Your task to perform on an android device: change keyboard looks Image 0: 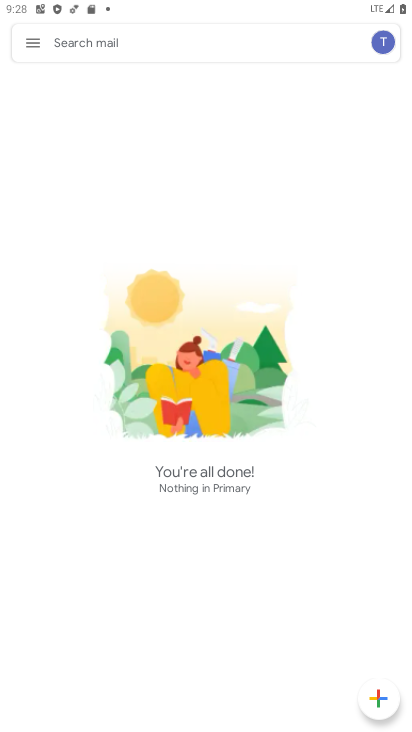
Step 0: press home button
Your task to perform on an android device: change keyboard looks Image 1: 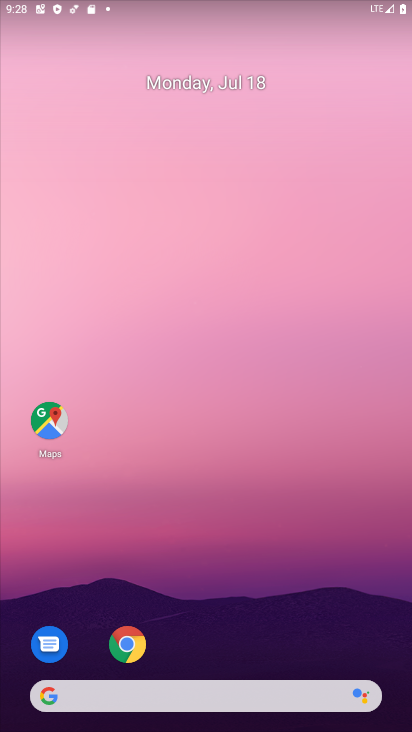
Step 1: drag from (257, 667) to (389, 319)
Your task to perform on an android device: change keyboard looks Image 2: 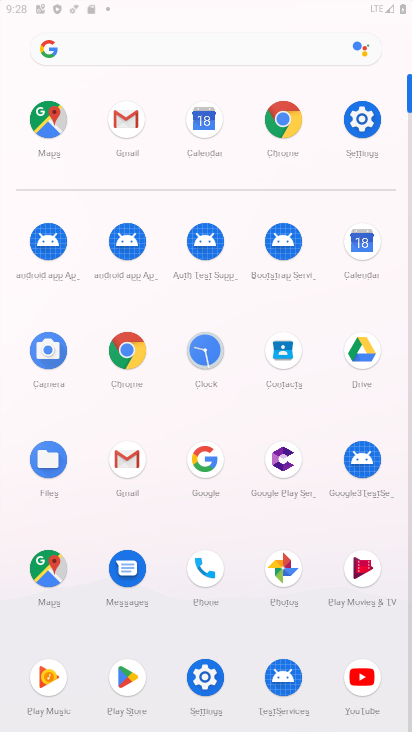
Step 2: click (261, 650)
Your task to perform on an android device: change keyboard looks Image 3: 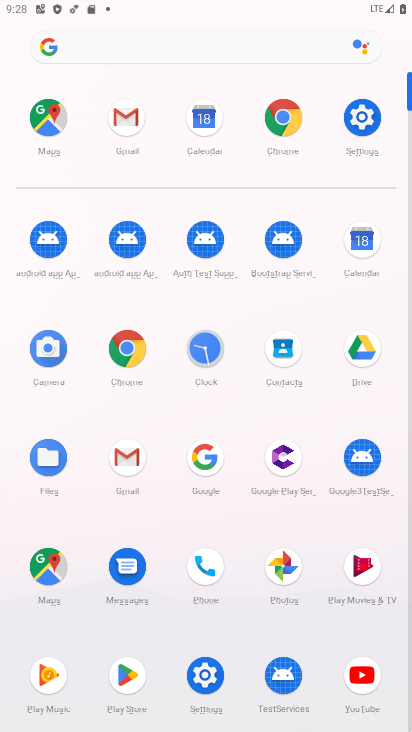
Step 3: click (189, 675)
Your task to perform on an android device: change keyboard looks Image 4: 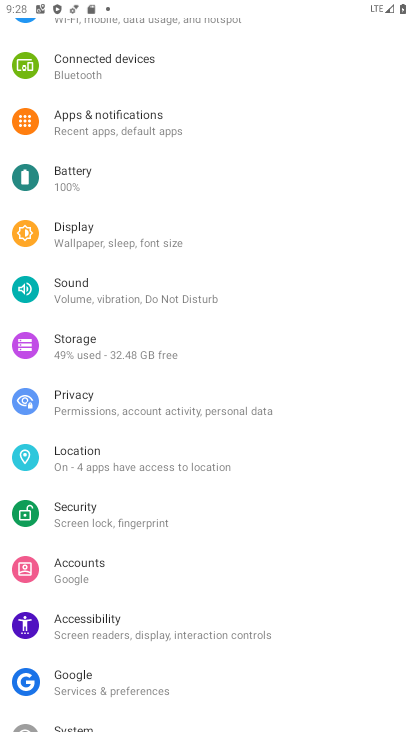
Step 4: drag from (193, 647) to (89, 80)
Your task to perform on an android device: change keyboard looks Image 5: 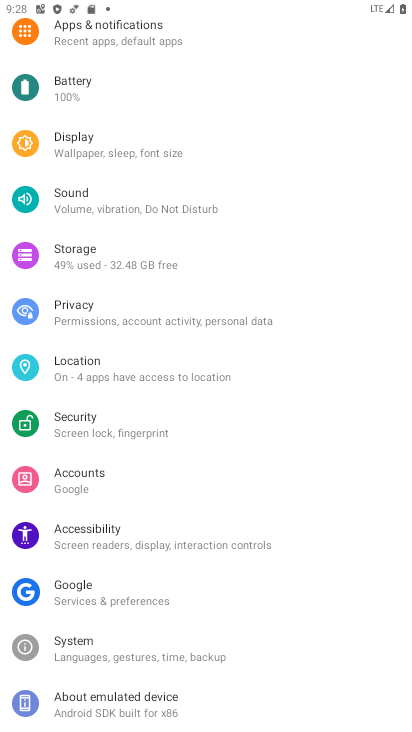
Step 5: click (92, 644)
Your task to perform on an android device: change keyboard looks Image 6: 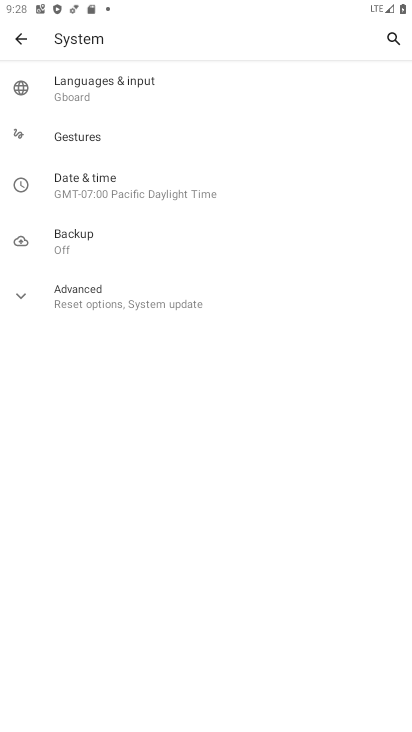
Step 6: click (65, 290)
Your task to perform on an android device: change keyboard looks Image 7: 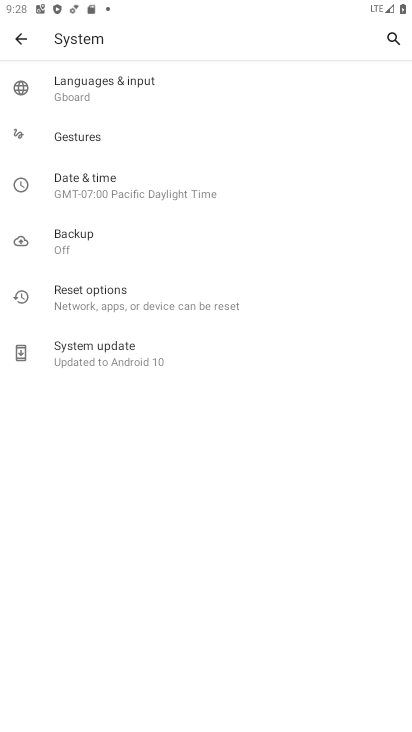
Step 7: click (84, 90)
Your task to perform on an android device: change keyboard looks Image 8: 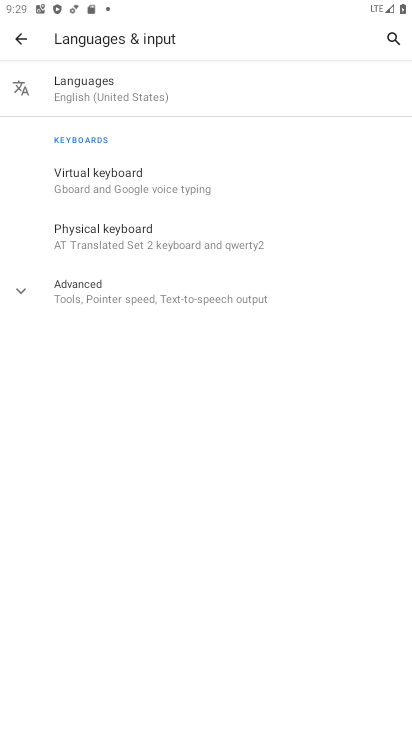
Step 8: click (99, 170)
Your task to perform on an android device: change keyboard looks Image 9: 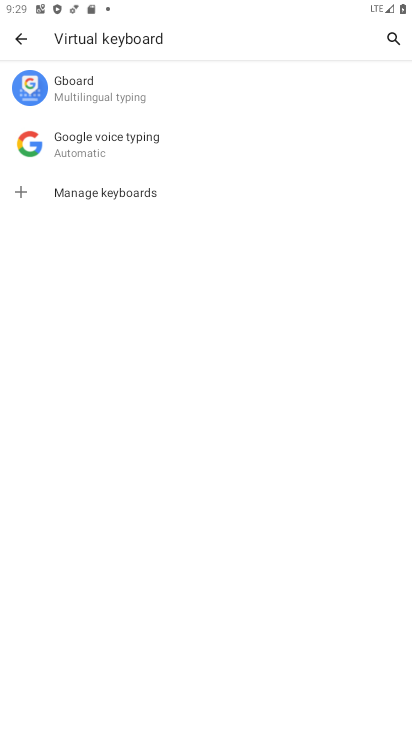
Step 9: click (65, 85)
Your task to perform on an android device: change keyboard looks Image 10: 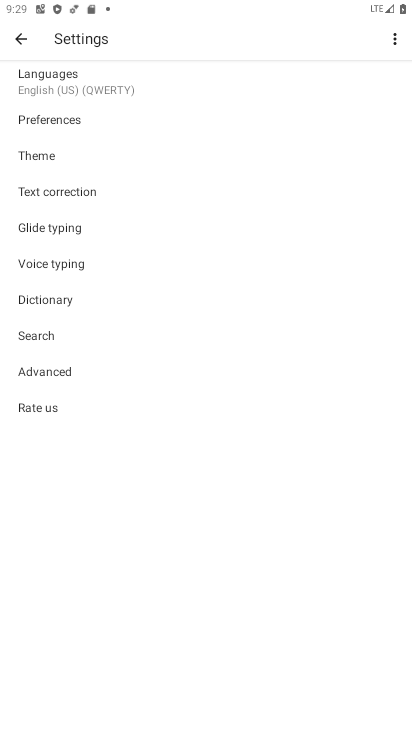
Step 10: click (51, 157)
Your task to perform on an android device: change keyboard looks Image 11: 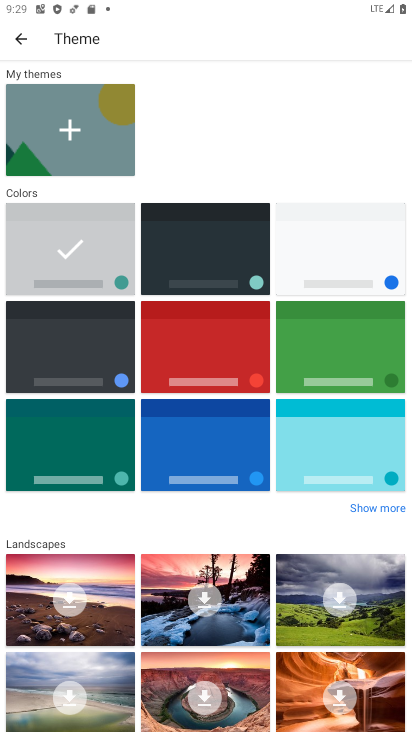
Step 11: click (163, 270)
Your task to perform on an android device: change keyboard looks Image 12: 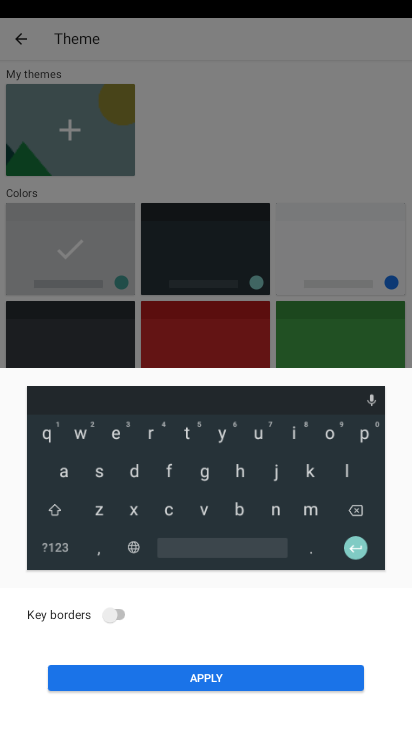
Step 12: click (199, 685)
Your task to perform on an android device: change keyboard looks Image 13: 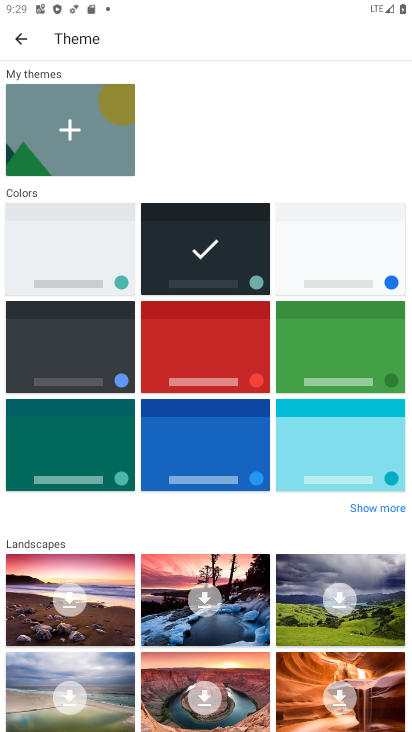
Step 13: task complete